Your task to perform on an android device: turn notification dots off Image 0: 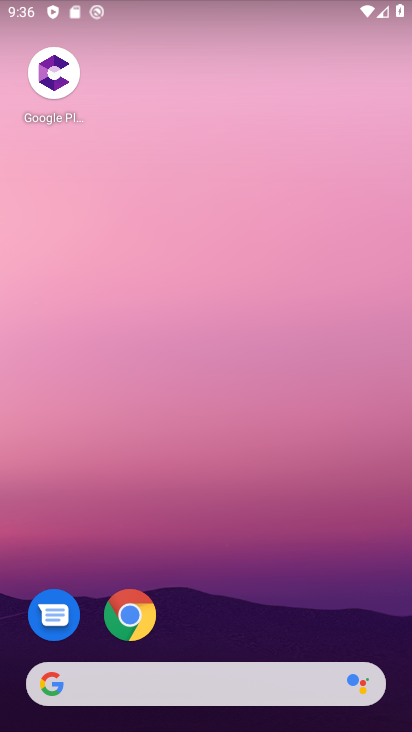
Step 0: drag from (229, 724) to (234, 59)
Your task to perform on an android device: turn notification dots off Image 1: 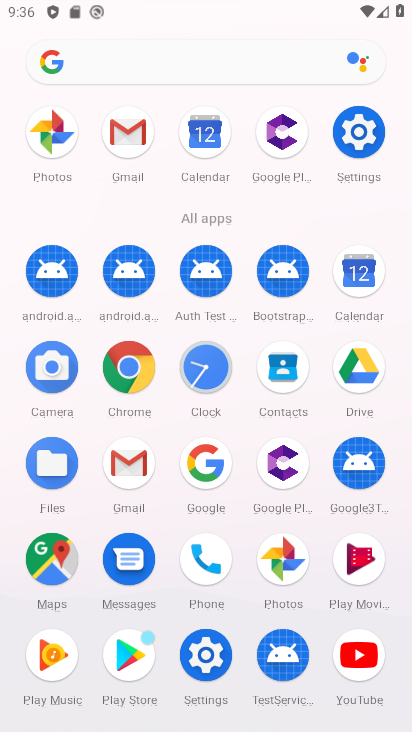
Step 1: click (351, 129)
Your task to perform on an android device: turn notification dots off Image 2: 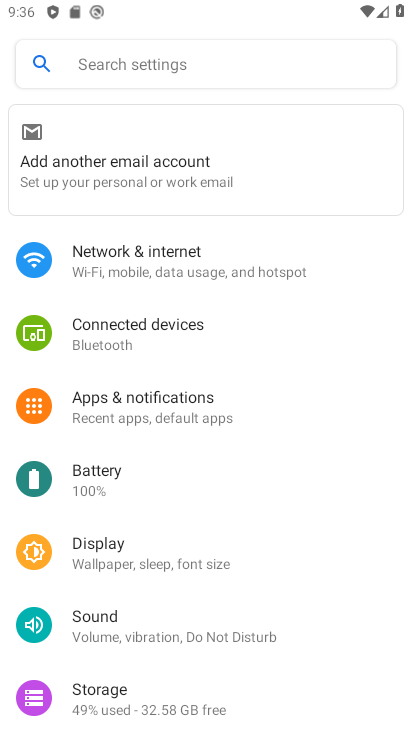
Step 2: click (161, 401)
Your task to perform on an android device: turn notification dots off Image 3: 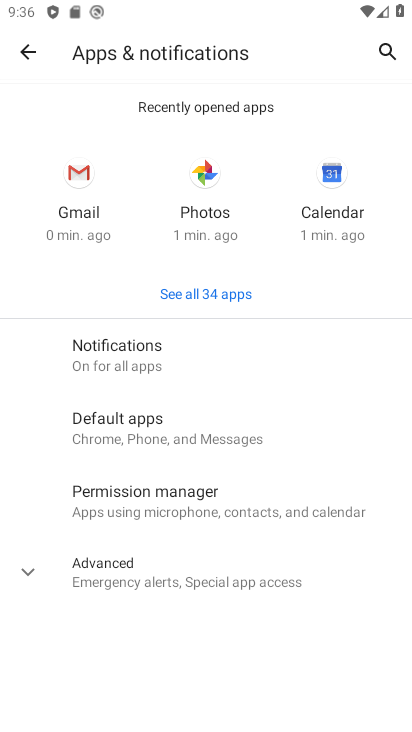
Step 3: click (113, 357)
Your task to perform on an android device: turn notification dots off Image 4: 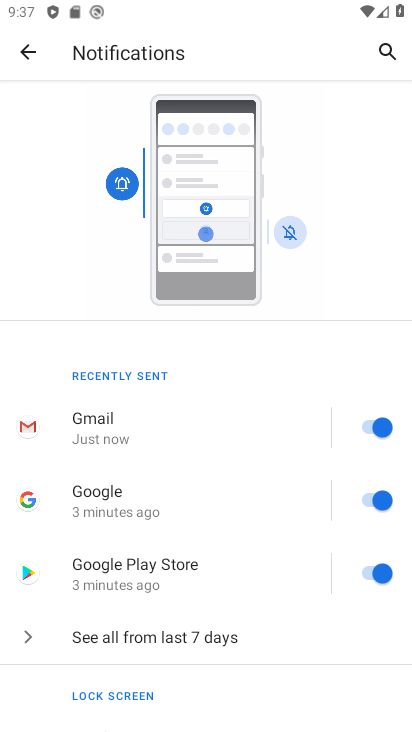
Step 4: drag from (199, 664) to (190, 354)
Your task to perform on an android device: turn notification dots off Image 5: 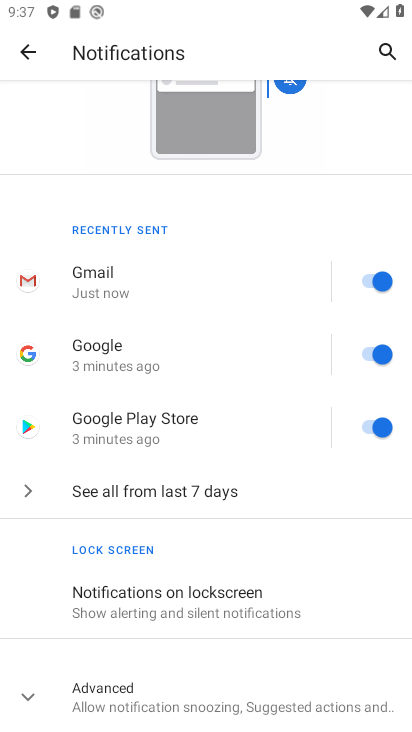
Step 5: drag from (207, 675) to (207, 353)
Your task to perform on an android device: turn notification dots off Image 6: 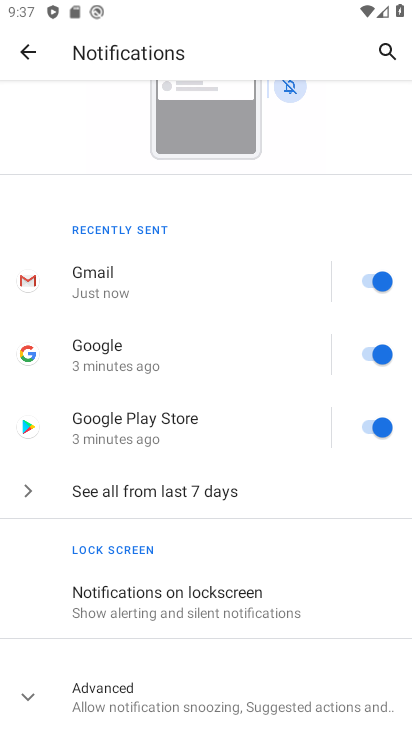
Step 6: click (128, 687)
Your task to perform on an android device: turn notification dots off Image 7: 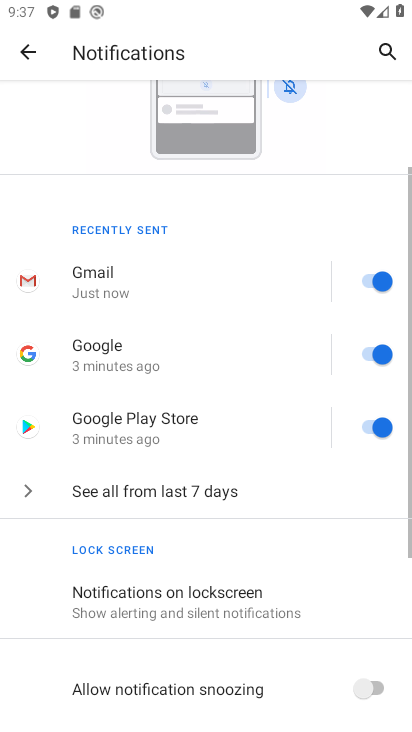
Step 7: drag from (184, 654) to (168, 343)
Your task to perform on an android device: turn notification dots off Image 8: 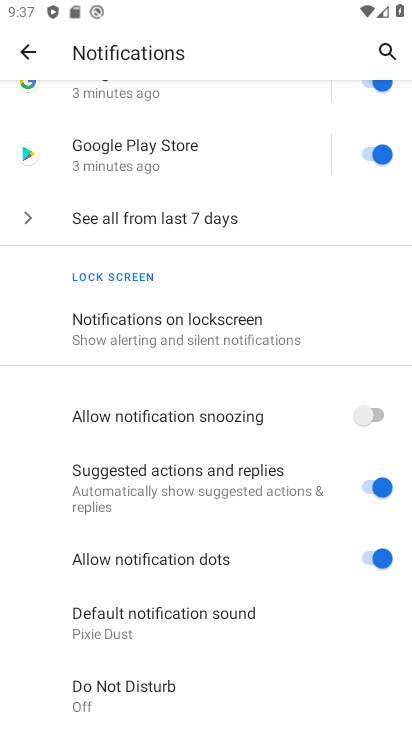
Step 8: click (370, 550)
Your task to perform on an android device: turn notification dots off Image 9: 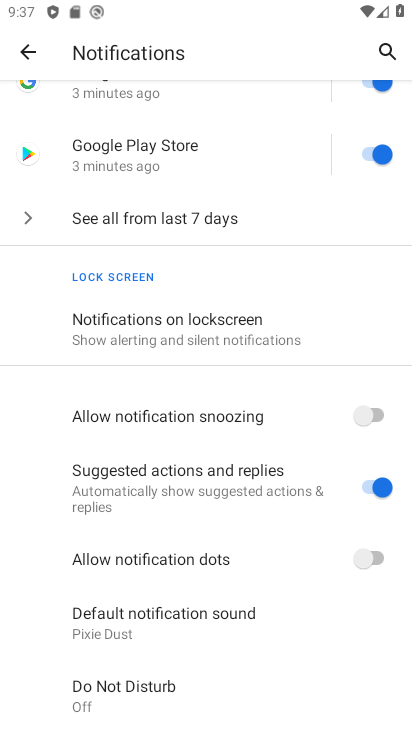
Step 9: task complete